Your task to perform on an android device: Open privacy settings Image 0: 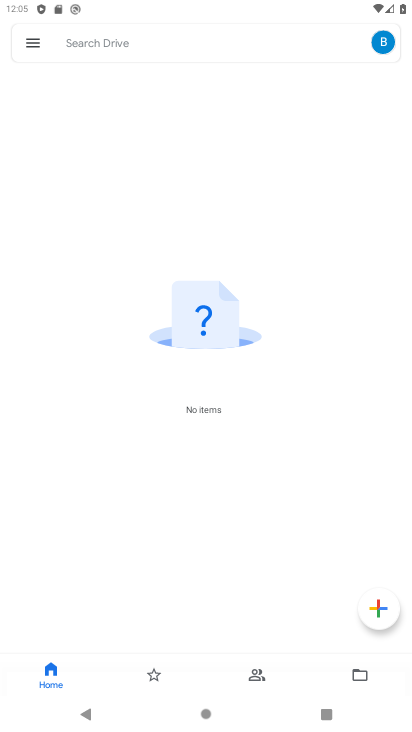
Step 0: press home button
Your task to perform on an android device: Open privacy settings Image 1: 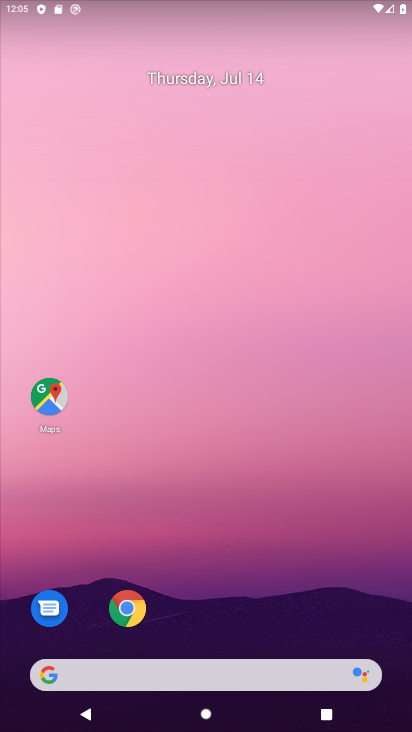
Step 1: drag from (12, 635) to (266, 234)
Your task to perform on an android device: Open privacy settings Image 2: 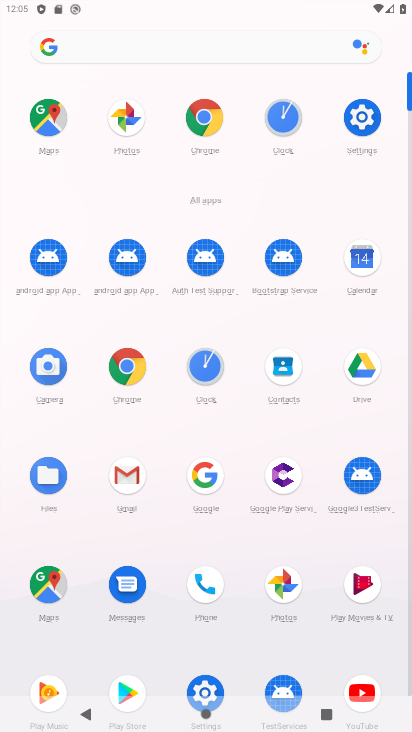
Step 2: click (376, 125)
Your task to perform on an android device: Open privacy settings Image 3: 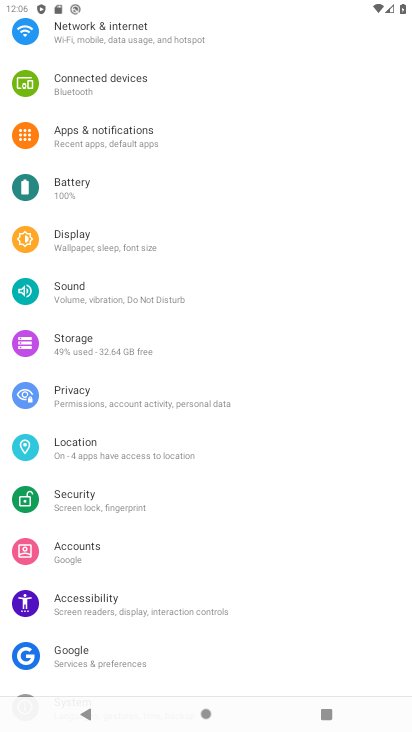
Step 3: click (114, 397)
Your task to perform on an android device: Open privacy settings Image 4: 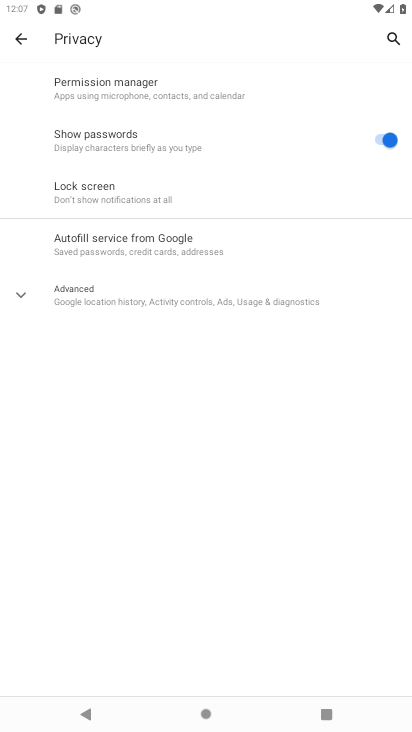
Step 4: task complete